Your task to perform on an android device: turn on javascript in the chrome app Image 0: 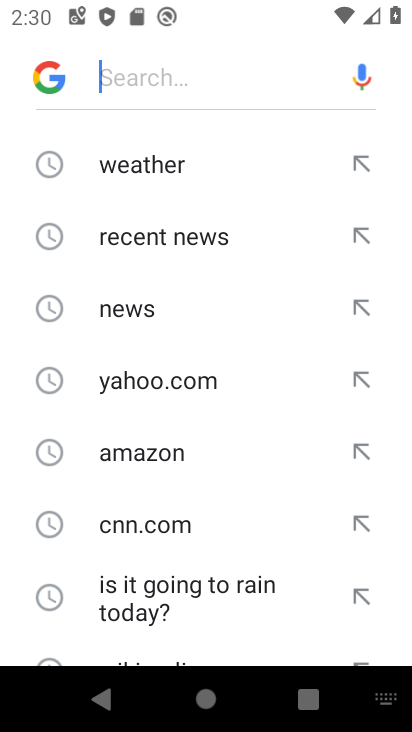
Step 0: press home button
Your task to perform on an android device: turn on javascript in the chrome app Image 1: 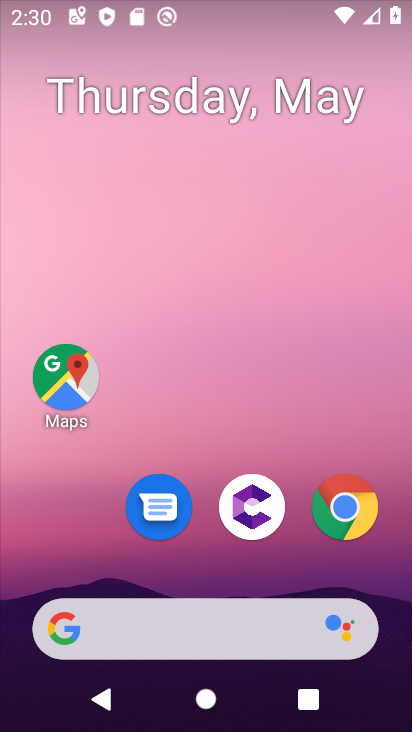
Step 1: click (353, 503)
Your task to perform on an android device: turn on javascript in the chrome app Image 2: 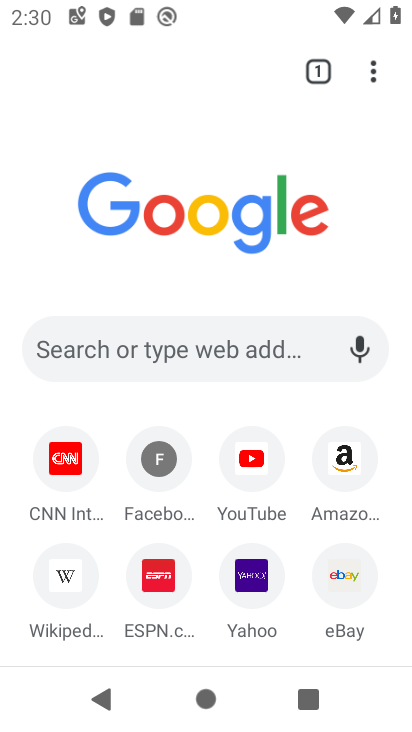
Step 2: drag from (374, 70) to (140, 513)
Your task to perform on an android device: turn on javascript in the chrome app Image 3: 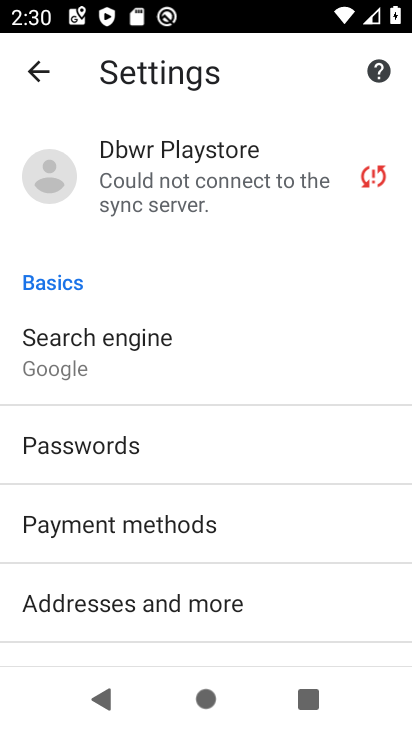
Step 3: drag from (328, 530) to (349, 295)
Your task to perform on an android device: turn on javascript in the chrome app Image 4: 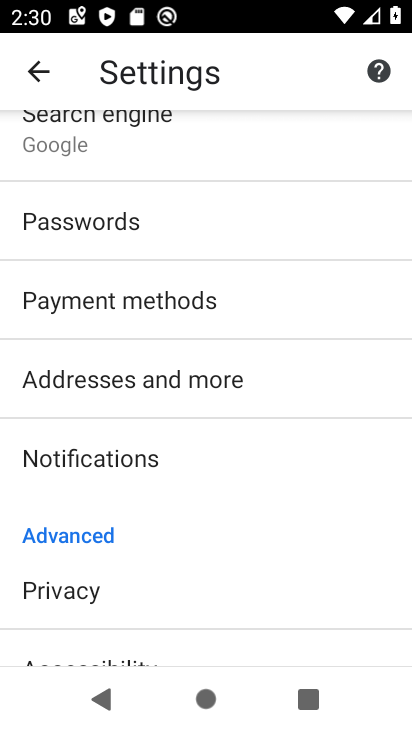
Step 4: drag from (240, 565) to (236, 249)
Your task to perform on an android device: turn on javascript in the chrome app Image 5: 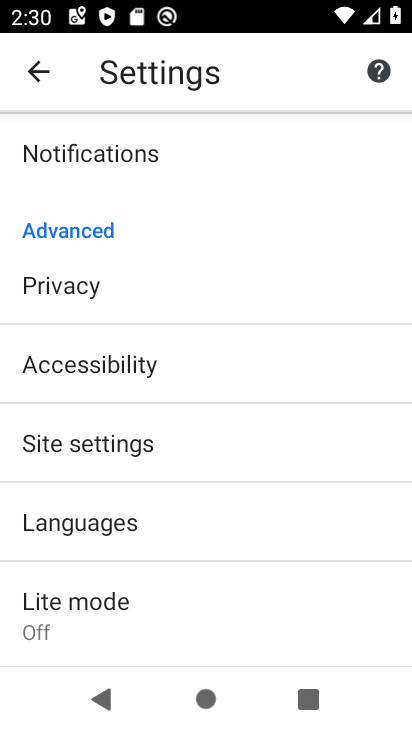
Step 5: click (143, 440)
Your task to perform on an android device: turn on javascript in the chrome app Image 6: 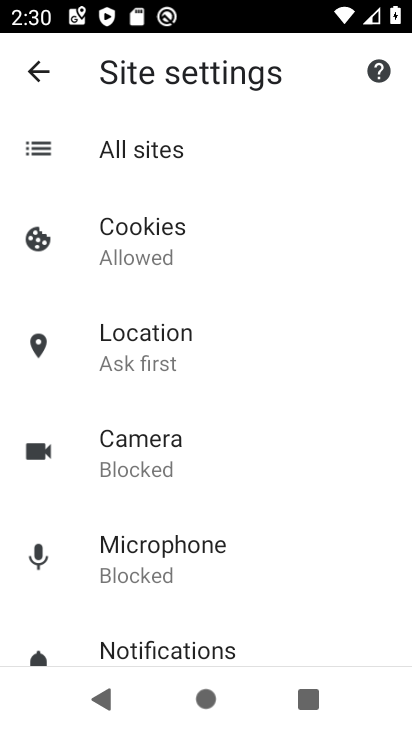
Step 6: drag from (283, 555) to (348, 253)
Your task to perform on an android device: turn on javascript in the chrome app Image 7: 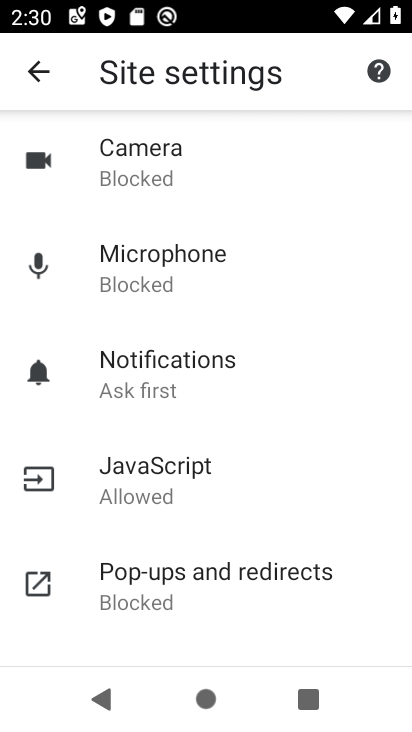
Step 7: click (136, 475)
Your task to perform on an android device: turn on javascript in the chrome app Image 8: 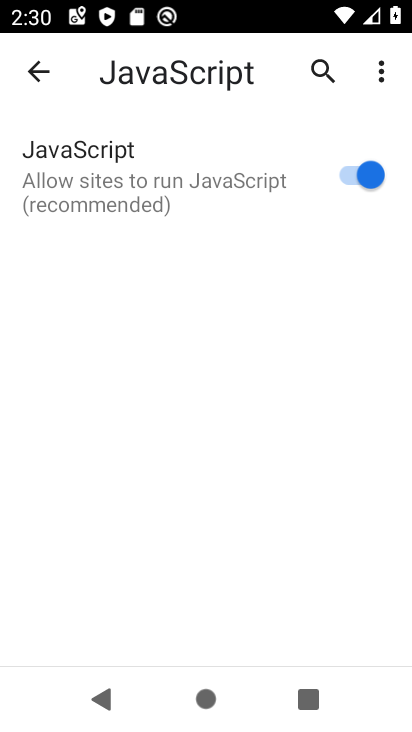
Step 8: task complete